Your task to perform on an android device: check battery use Image 0: 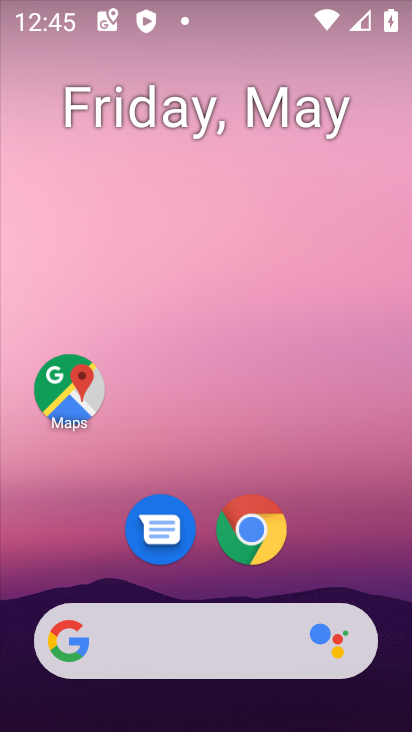
Step 0: drag from (359, 551) to (272, 30)
Your task to perform on an android device: check battery use Image 1: 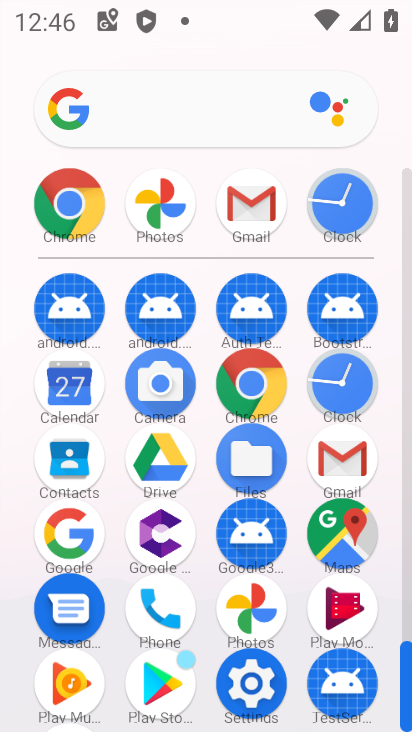
Step 1: click (250, 678)
Your task to perform on an android device: check battery use Image 2: 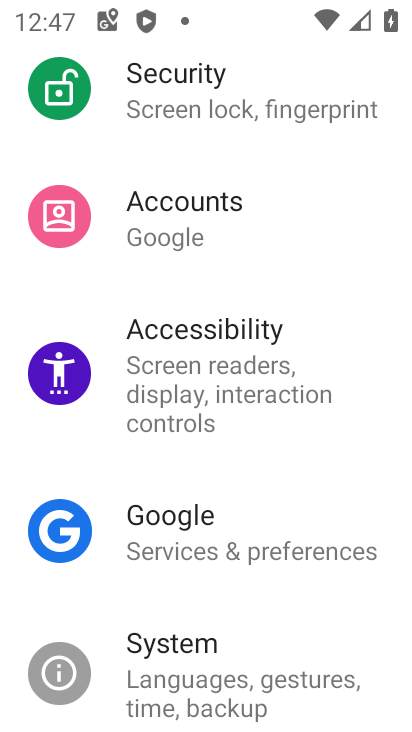
Step 2: drag from (212, 295) to (259, 694)
Your task to perform on an android device: check battery use Image 3: 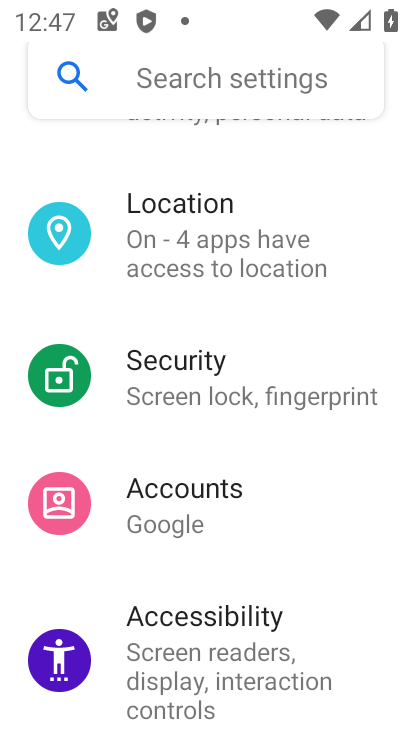
Step 3: drag from (279, 640) to (273, 193)
Your task to perform on an android device: check battery use Image 4: 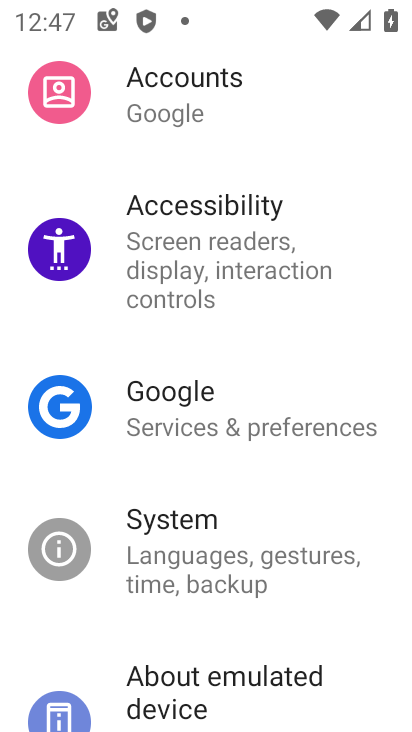
Step 4: drag from (224, 245) to (216, 699)
Your task to perform on an android device: check battery use Image 5: 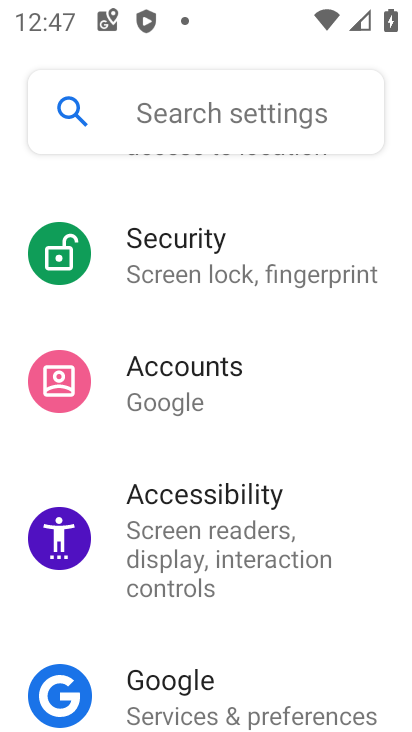
Step 5: drag from (268, 298) to (263, 644)
Your task to perform on an android device: check battery use Image 6: 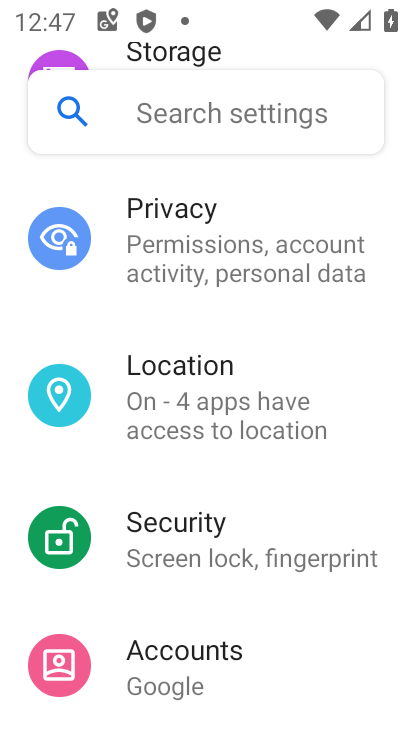
Step 6: drag from (263, 236) to (247, 731)
Your task to perform on an android device: check battery use Image 7: 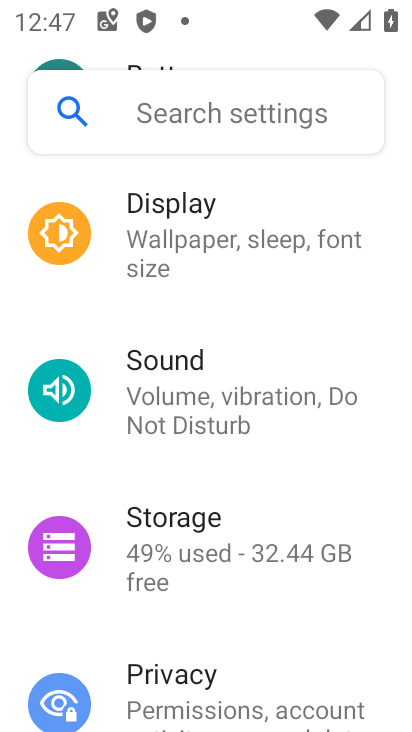
Step 7: drag from (245, 339) to (241, 651)
Your task to perform on an android device: check battery use Image 8: 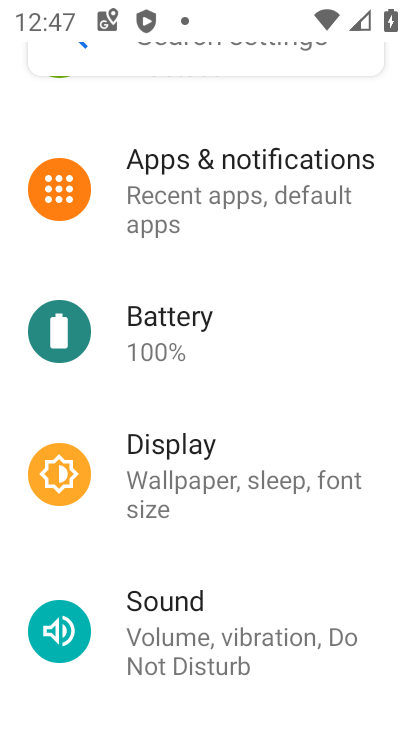
Step 8: click (179, 346)
Your task to perform on an android device: check battery use Image 9: 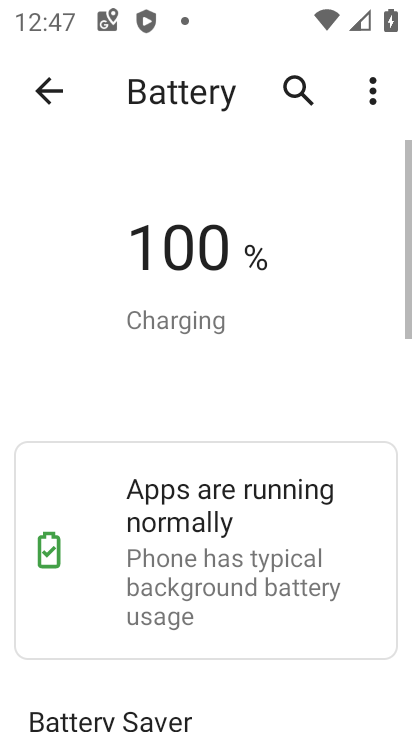
Step 9: task complete